Your task to perform on an android device: change the clock style Image 0: 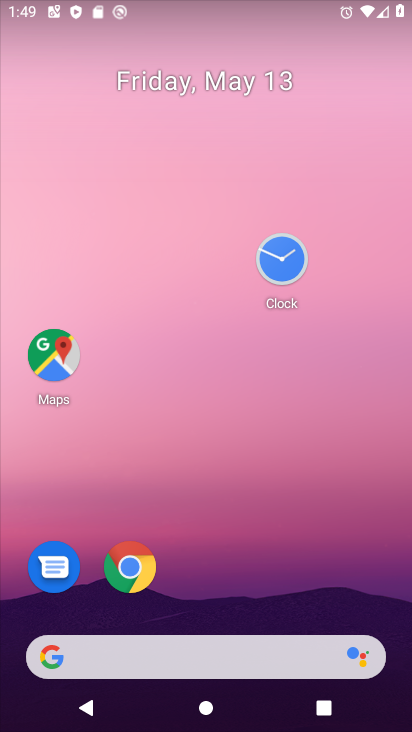
Step 0: click (262, 241)
Your task to perform on an android device: change the clock style Image 1: 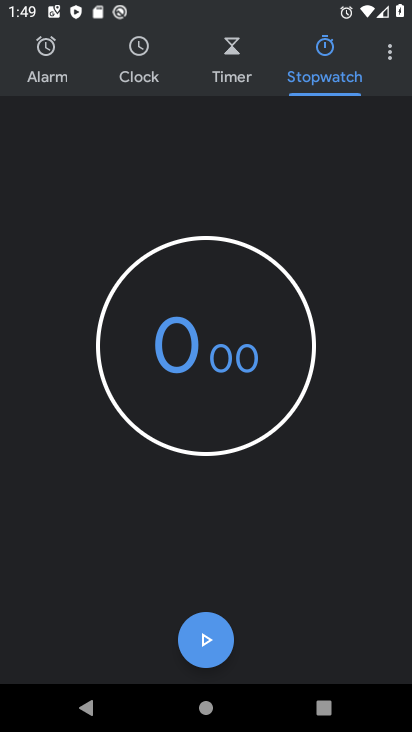
Step 1: click (389, 64)
Your task to perform on an android device: change the clock style Image 2: 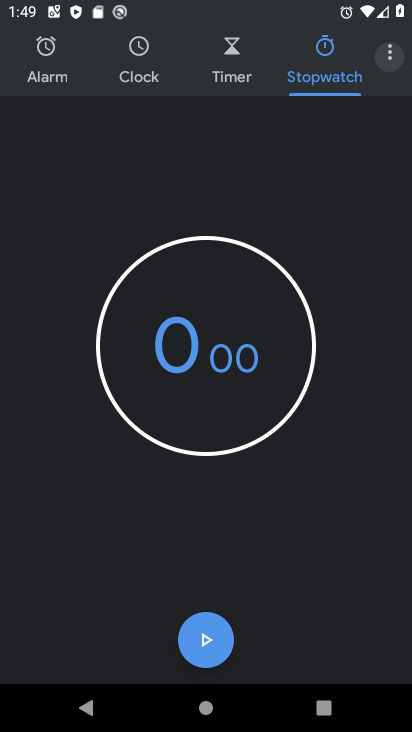
Step 2: click (389, 64)
Your task to perform on an android device: change the clock style Image 3: 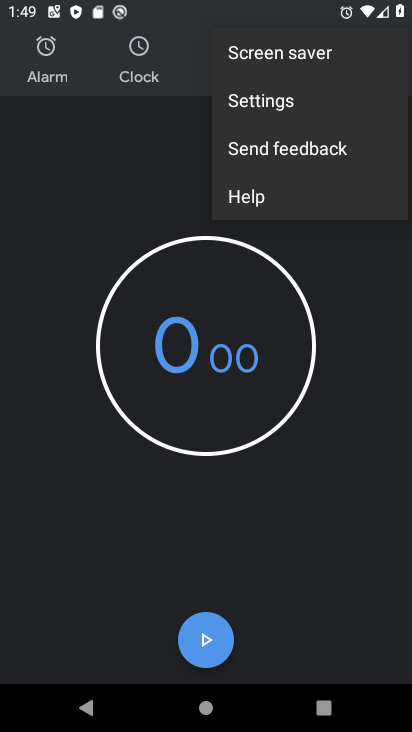
Step 3: click (344, 81)
Your task to perform on an android device: change the clock style Image 4: 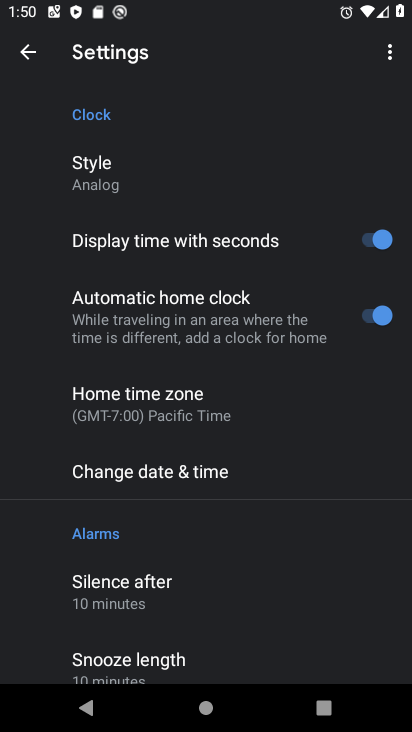
Step 4: click (181, 174)
Your task to perform on an android device: change the clock style Image 5: 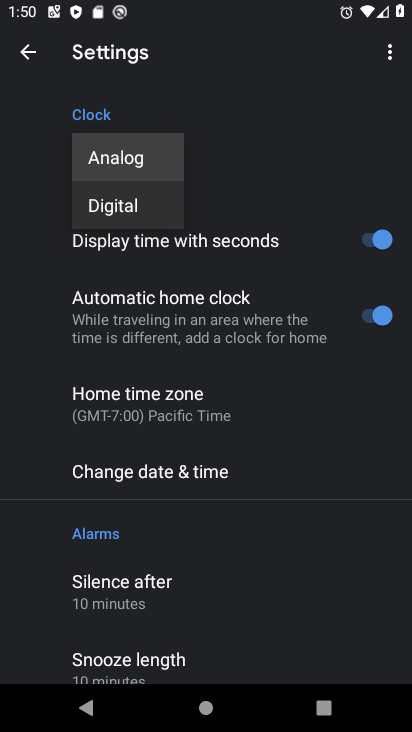
Step 5: click (127, 201)
Your task to perform on an android device: change the clock style Image 6: 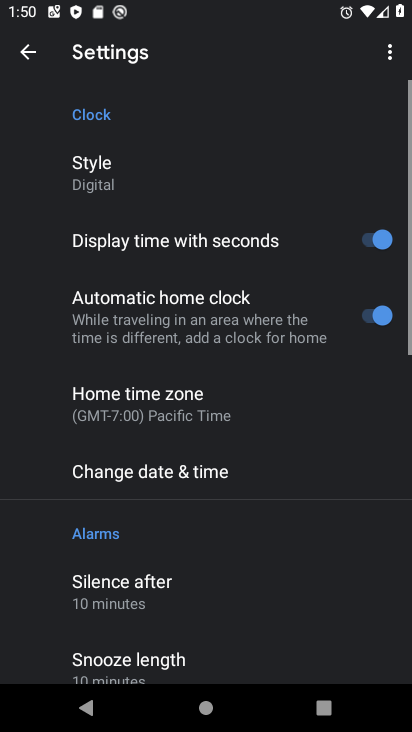
Step 6: task complete